Your task to perform on an android device: empty trash in google photos Image 0: 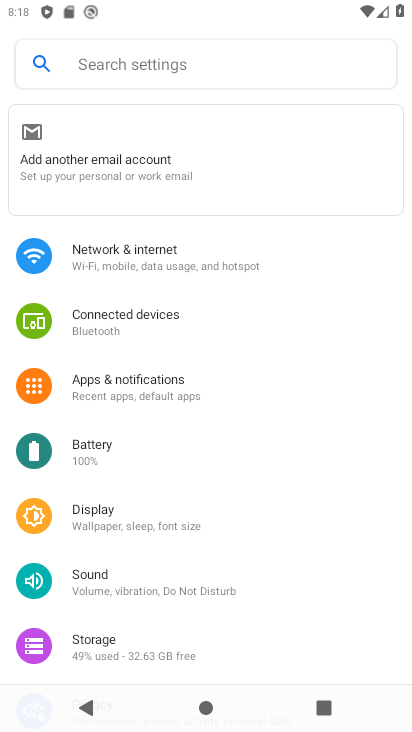
Step 0: press home button
Your task to perform on an android device: empty trash in google photos Image 1: 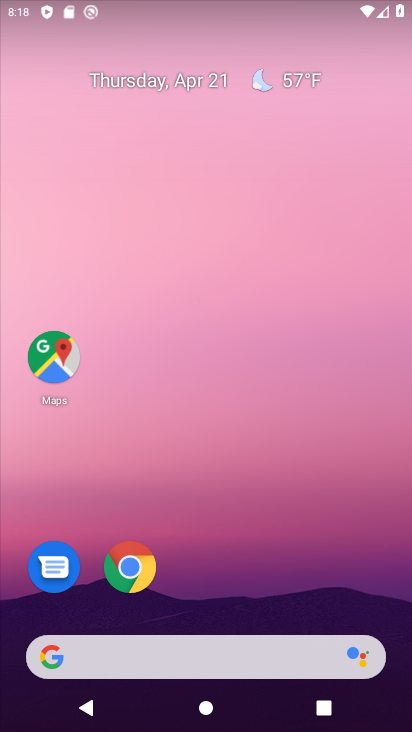
Step 1: drag from (232, 622) to (282, 17)
Your task to perform on an android device: empty trash in google photos Image 2: 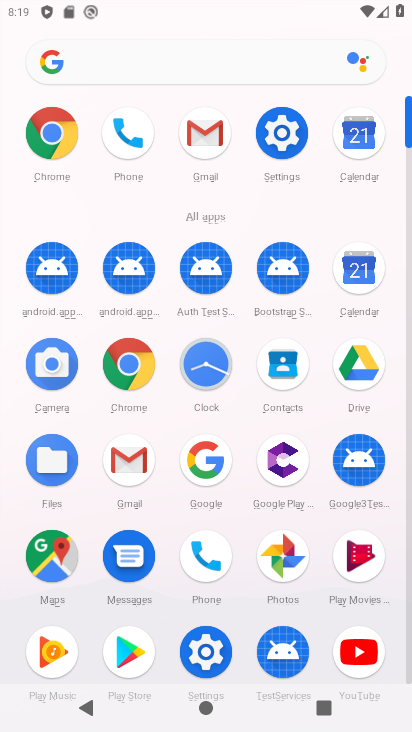
Step 2: click (275, 546)
Your task to perform on an android device: empty trash in google photos Image 3: 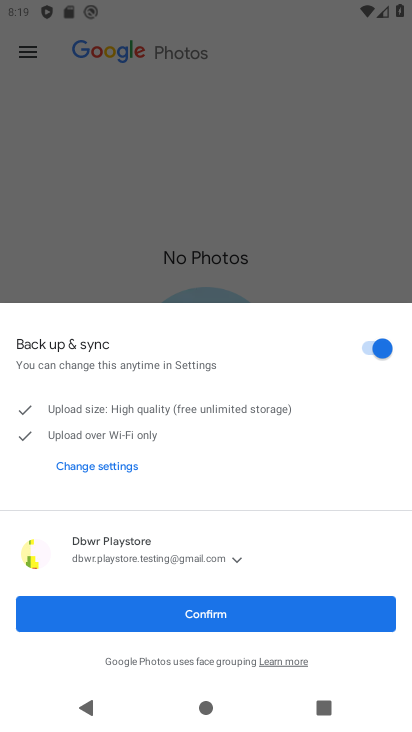
Step 3: click (222, 603)
Your task to perform on an android device: empty trash in google photos Image 4: 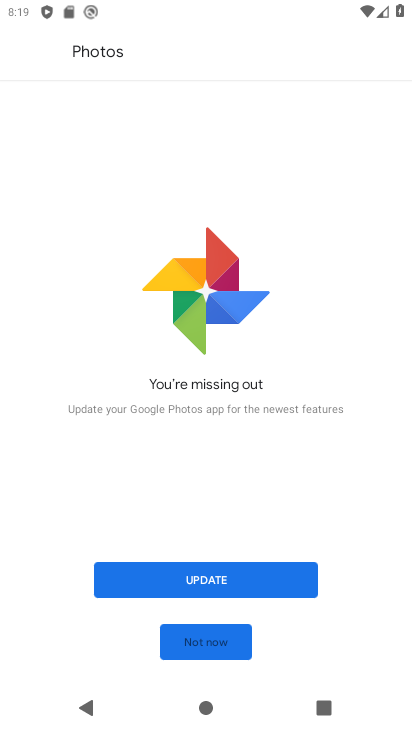
Step 4: click (198, 641)
Your task to perform on an android device: empty trash in google photos Image 5: 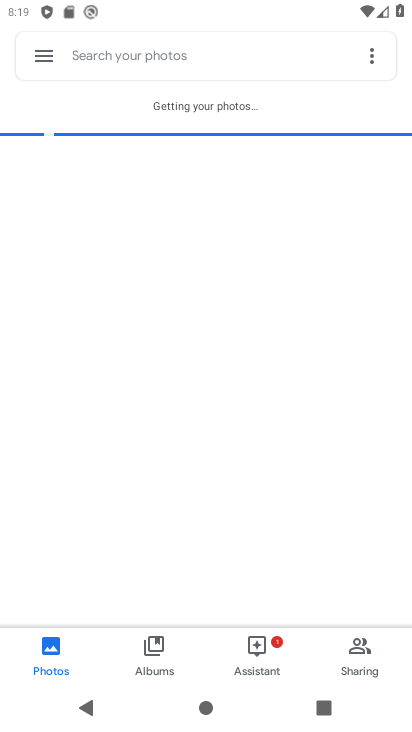
Step 5: click (30, 59)
Your task to perform on an android device: empty trash in google photos Image 6: 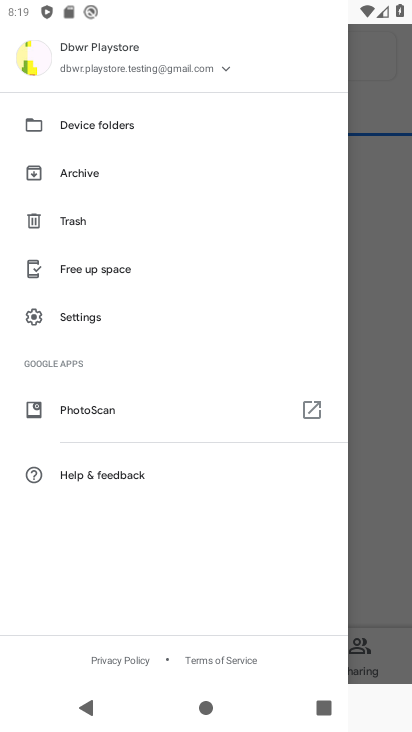
Step 6: click (53, 214)
Your task to perform on an android device: empty trash in google photos Image 7: 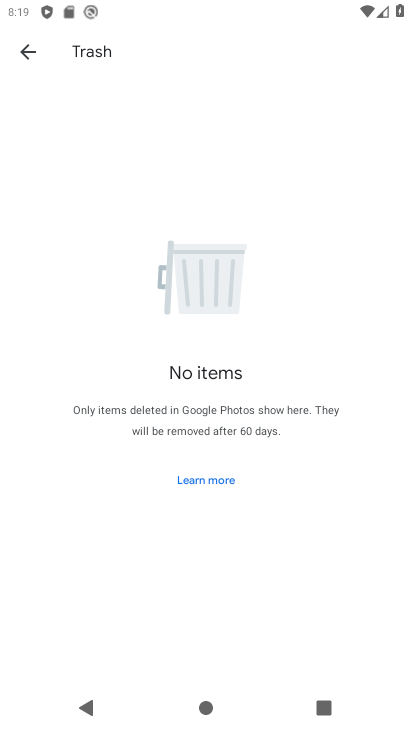
Step 7: task complete